Your task to perform on an android device: change the clock style Image 0: 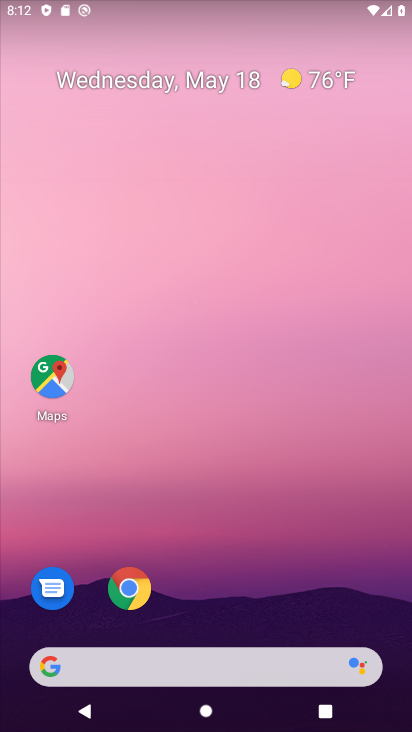
Step 0: drag from (240, 617) to (290, 61)
Your task to perform on an android device: change the clock style Image 1: 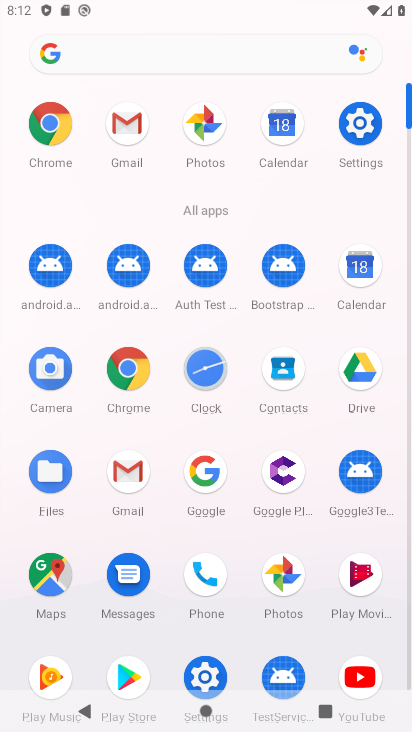
Step 1: click (212, 383)
Your task to perform on an android device: change the clock style Image 2: 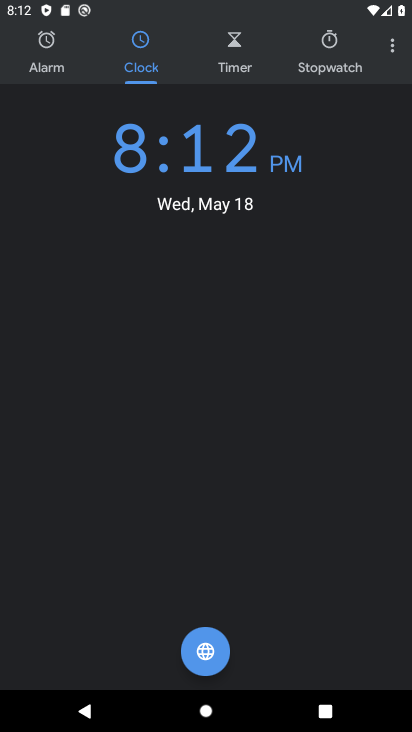
Step 2: click (395, 48)
Your task to perform on an android device: change the clock style Image 3: 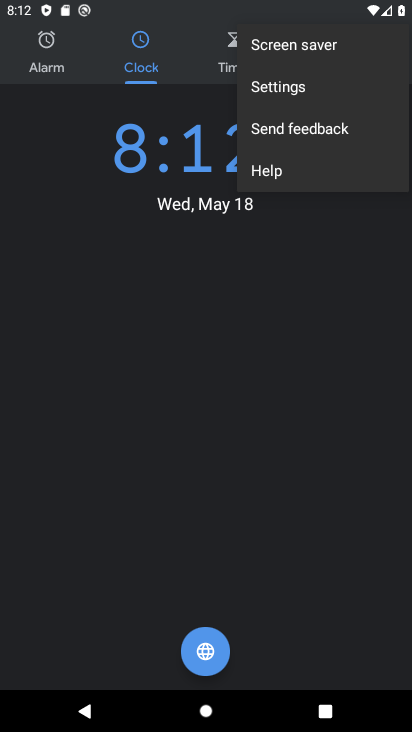
Step 3: click (332, 84)
Your task to perform on an android device: change the clock style Image 4: 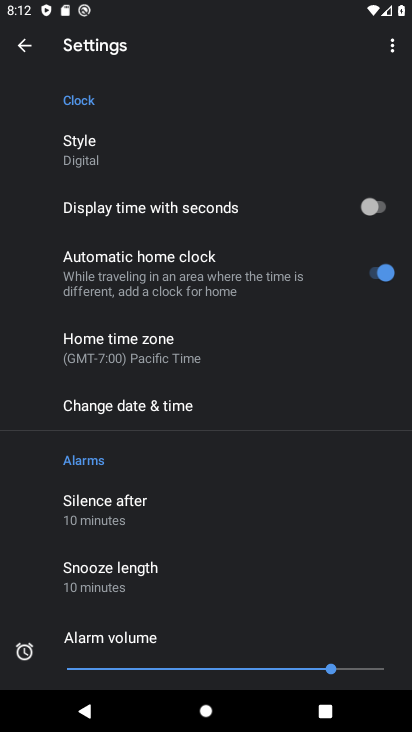
Step 4: click (227, 397)
Your task to perform on an android device: change the clock style Image 5: 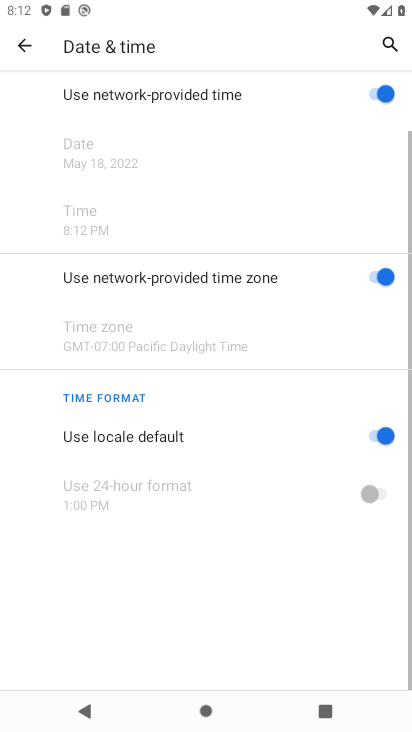
Step 5: click (14, 50)
Your task to perform on an android device: change the clock style Image 6: 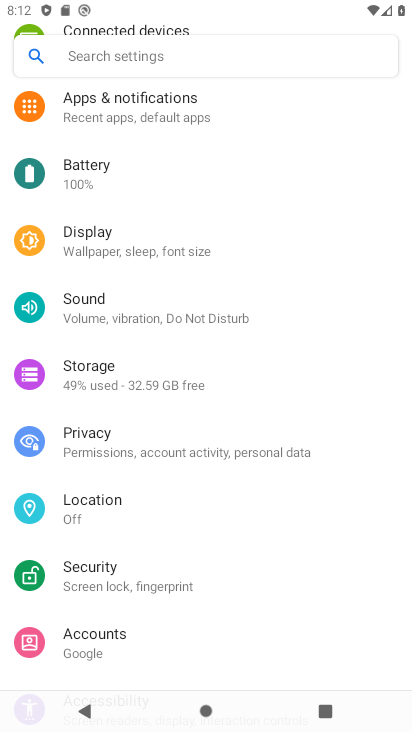
Step 6: press home button
Your task to perform on an android device: change the clock style Image 7: 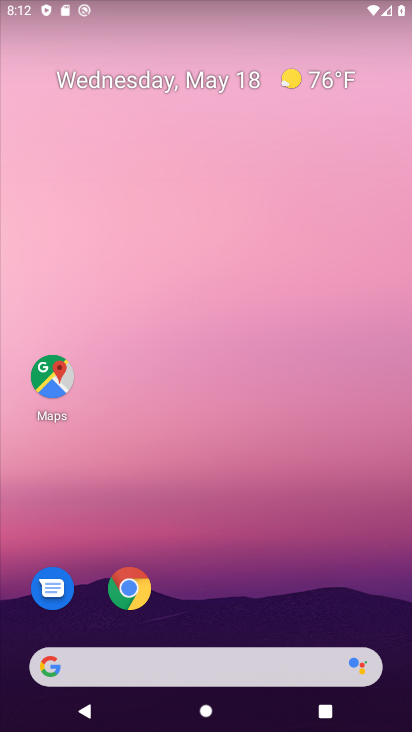
Step 7: drag from (226, 550) to (241, 77)
Your task to perform on an android device: change the clock style Image 8: 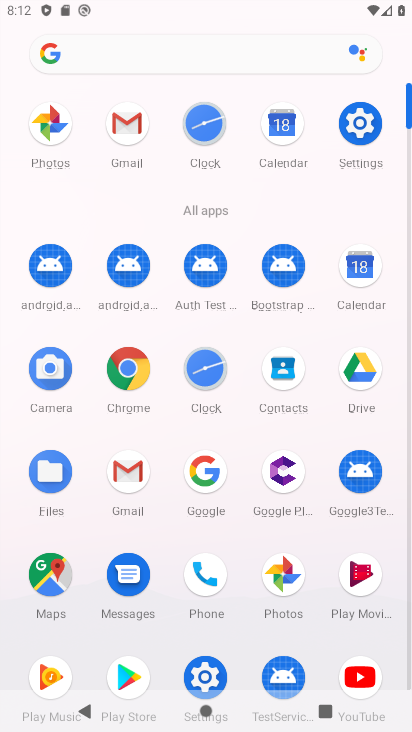
Step 8: click (191, 154)
Your task to perform on an android device: change the clock style Image 9: 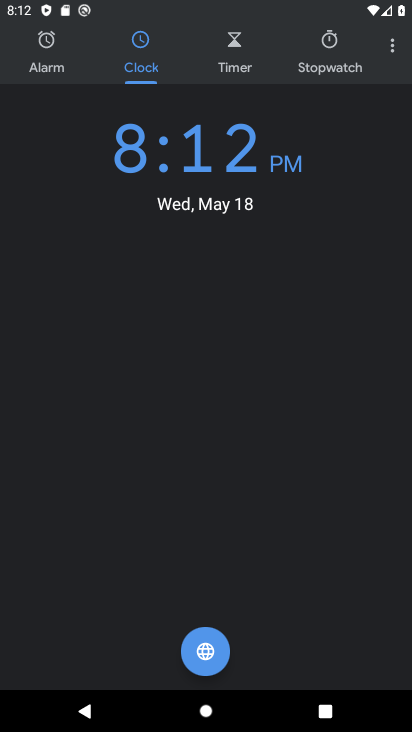
Step 9: click (394, 30)
Your task to perform on an android device: change the clock style Image 10: 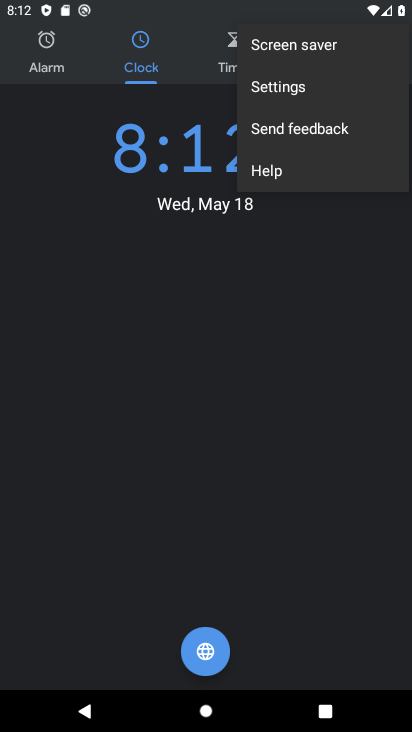
Step 10: click (361, 70)
Your task to perform on an android device: change the clock style Image 11: 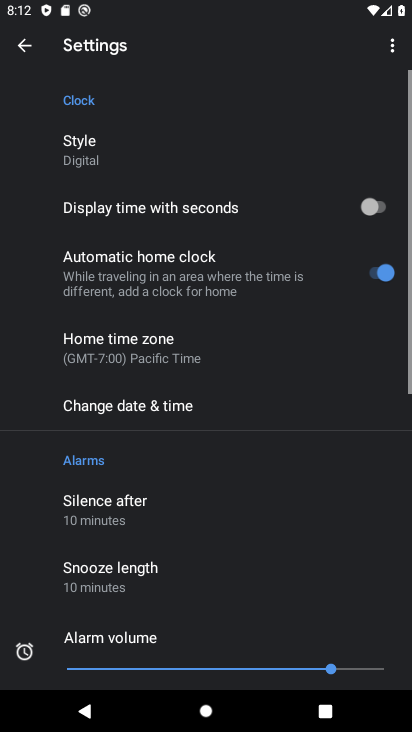
Step 11: click (285, 131)
Your task to perform on an android device: change the clock style Image 12: 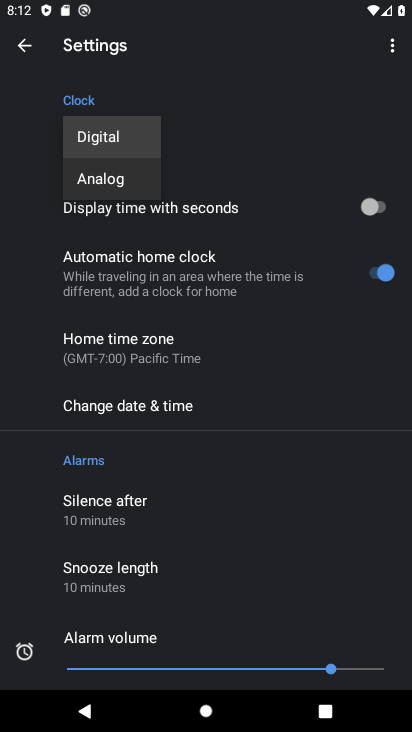
Step 12: click (127, 175)
Your task to perform on an android device: change the clock style Image 13: 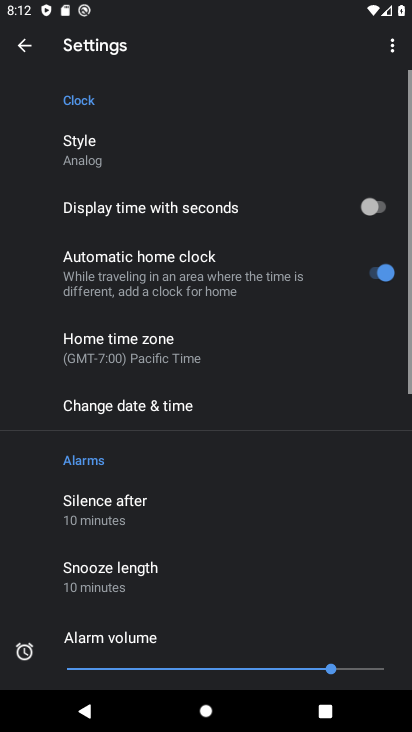
Step 13: task complete